Your task to perform on an android device: Show me productivity apps on the Play Store Image 0: 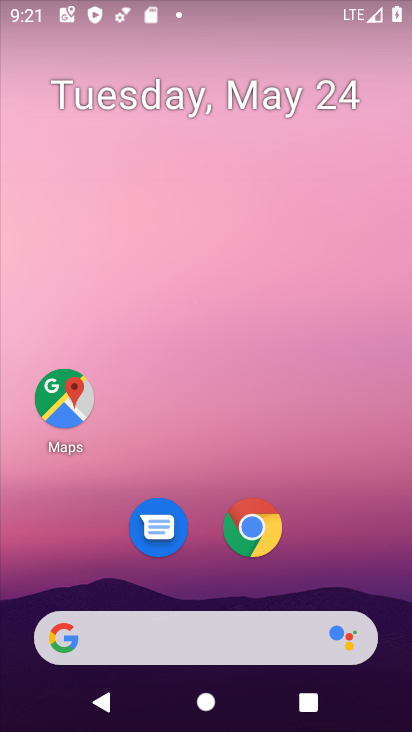
Step 0: drag from (199, 491) to (228, 53)
Your task to perform on an android device: Show me productivity apps on the Play Store Image 1: 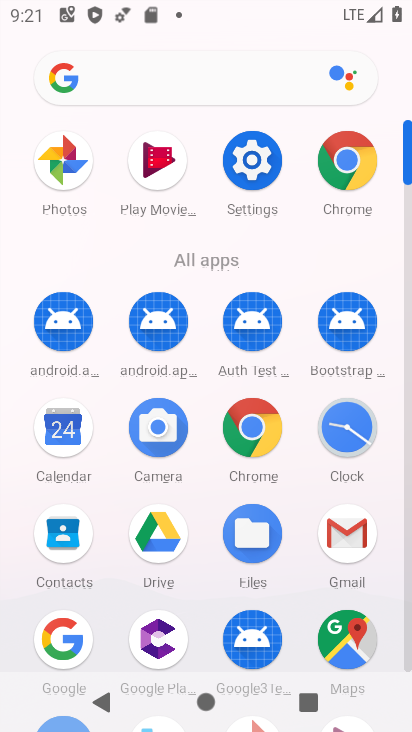
Step 1: drag from (202, 596) to (210, 62)
Your task to perform on an android device: Show me productivity apps on the Play Store Image 2: 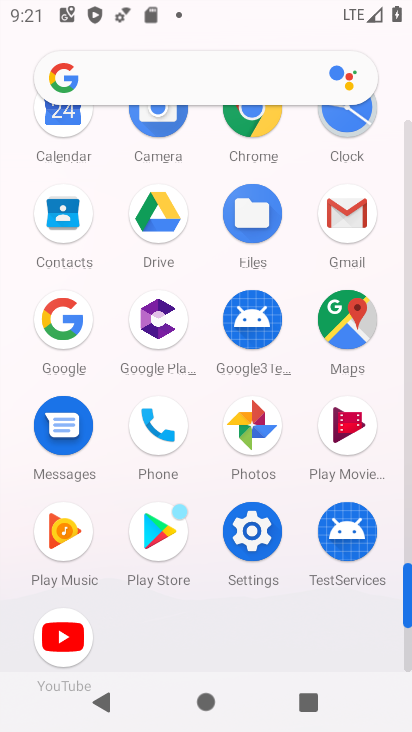
Step 2: click (160, 537)
Your task to perform on an android device: Show me productivity apps on the Play Store Image 3: 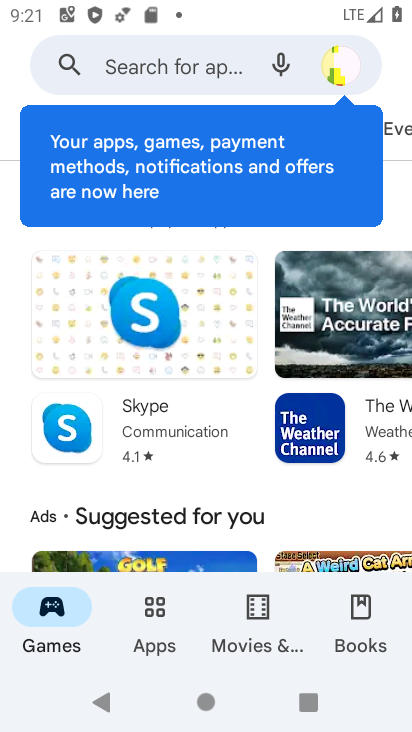
Step 3: click (18, 83)
Your task to perform on an android device: Show me productivity apps on the Play Store Image 4: 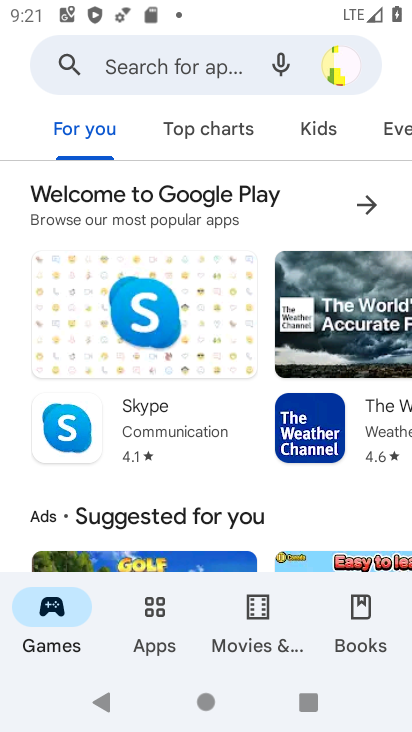
Step 4: click (148, 619)
Your task to perform on an android device: Show me productivity apps on the Play Store Image 5: 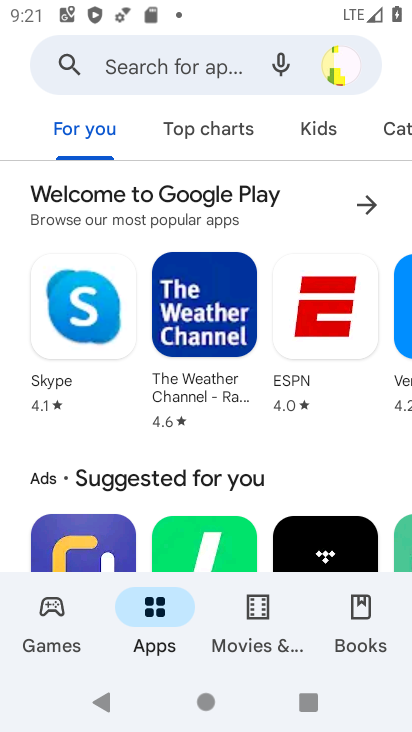
Step 5: click (223, 136)
Your task to perform on an android device: Show me productivity apps on the Play Store Image 6: 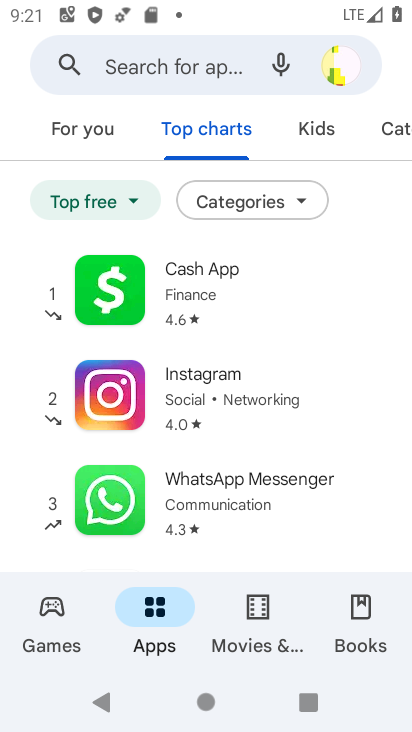
Step 6: click (325, 127)
Your task to perform on an android device: Show me productivity apps on the Play Store Image 7: 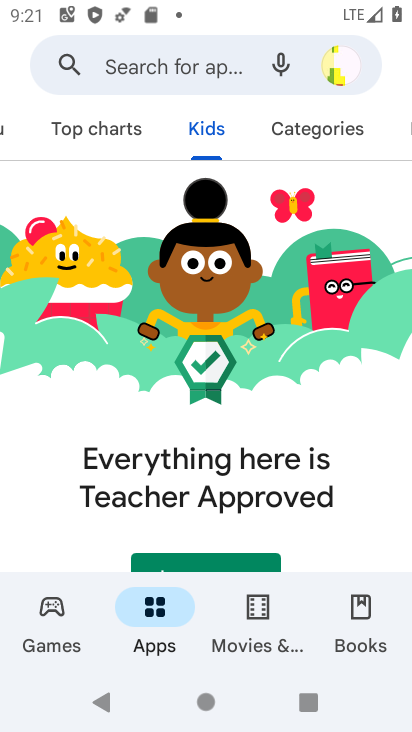
Step 7: click (340, 131)
Your task to perform on an android device: Show me productivity apps on the Play Store Image 8: 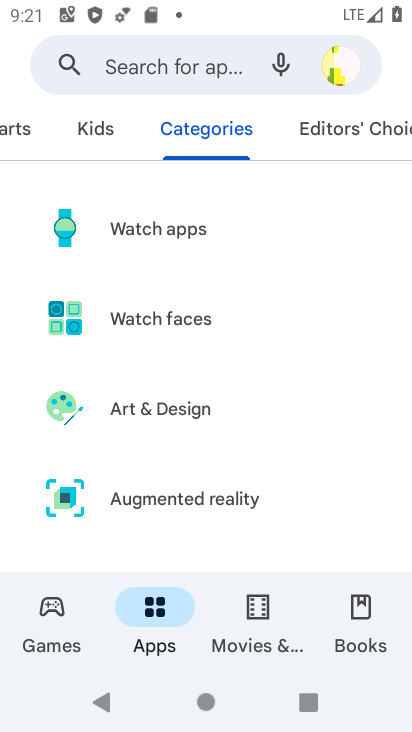
Step 8: drag from (207, 468) to (201, 66)
Your task to perform on an android device: Show me productivity apps on the Play Store Image 9: 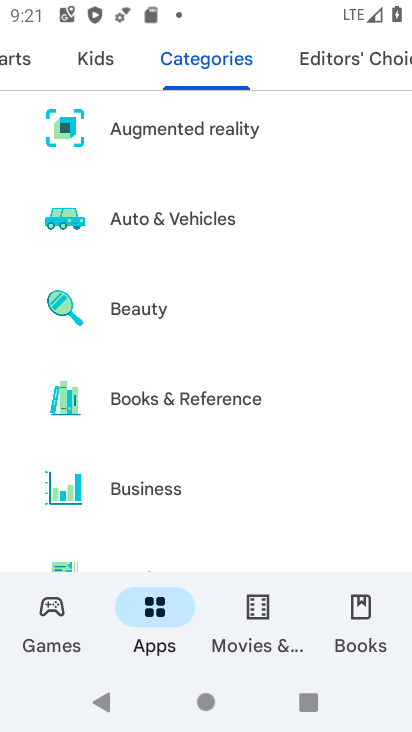
Step 9: drag from (201, 377) to (203, 36)
Your task to perform on an android device: Show me productivity apps on the Play Store Image 10: 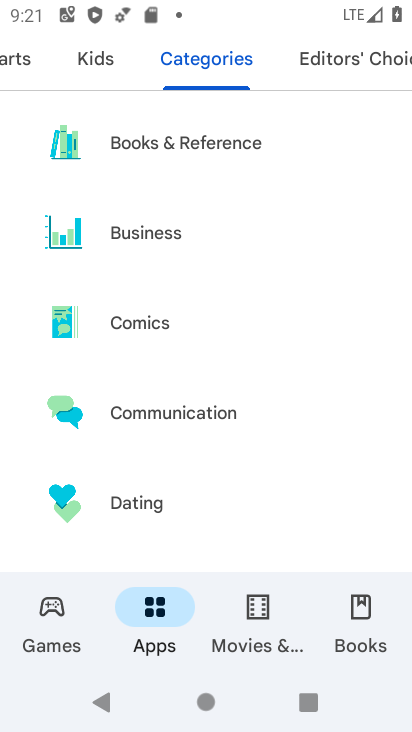
Step 10: drag from (198, 470) to (214, 92)
Your task to perform on an android device: Show me productivity apps on the Play Store Image 11: 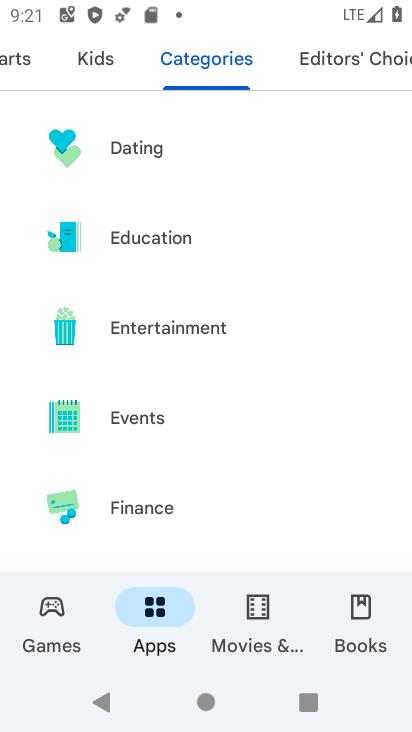
Step 11: drag from (182, 525) to (197, 98)
Your task to perform on an android device: Show me productivity apps on the Play Store Image 12: 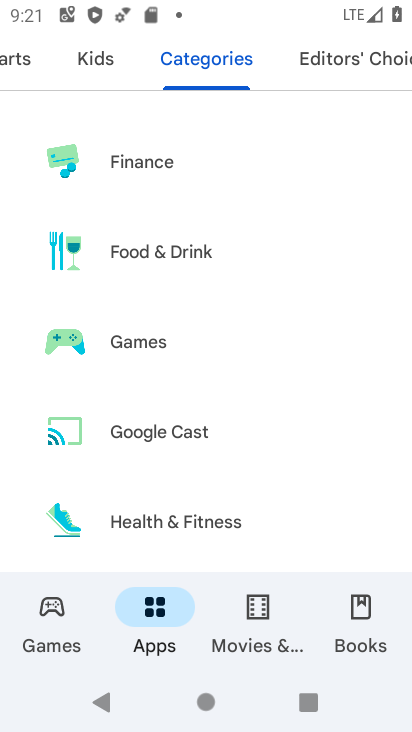
Step 12: drag from (169, 497) to (175, 80)
Your task to perform on an android device: Show me productivity apps on the Play Store Image 13: 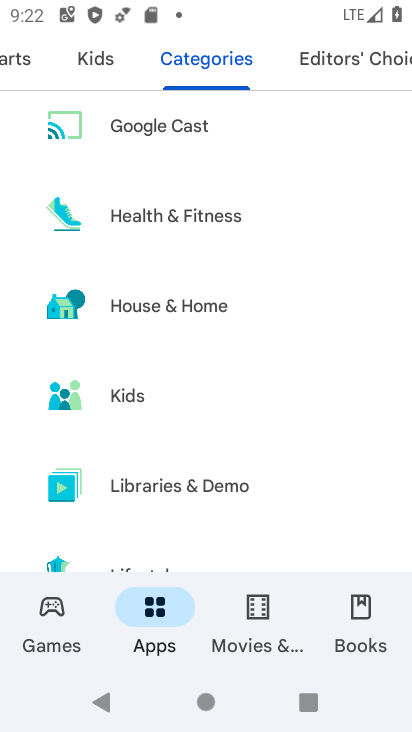
Step 13: drag from (187, 530) to (178, 136)
Your task to perform on an android device: Show me productivity apps on the Play Store Image 14: 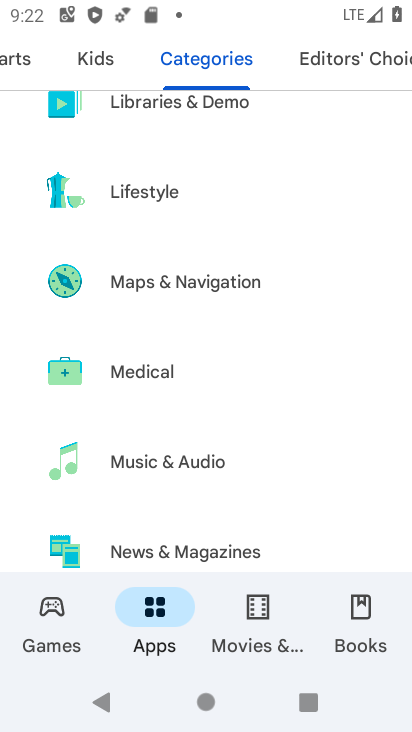
Step 14: drag from (206, 454) to (205, 164)
Your task to perform on an android device: Show me productivity apps on the Play Store Image 15: 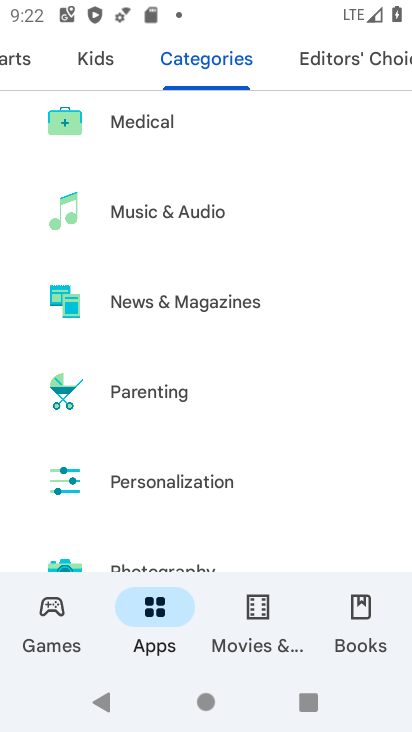
Step 15: drag from (180, 525) to (182, 241)
Your task to perform on an android device: Show me productivity apps on the Play Store Image 16: 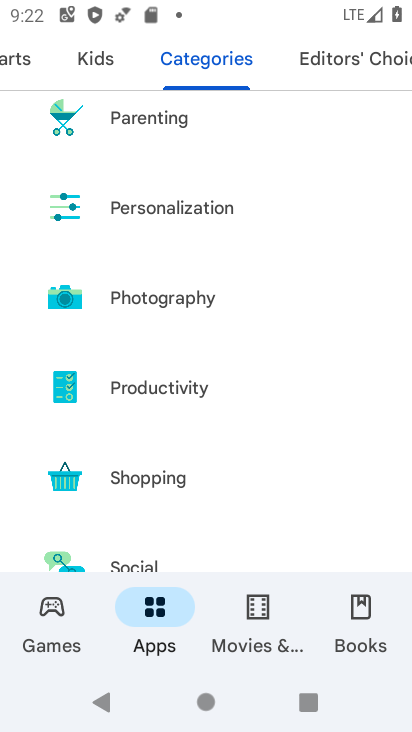
Step 16: click (176, 383)
Your task to perform on an android device: Show me productivity apps on the Play Store Image 17: 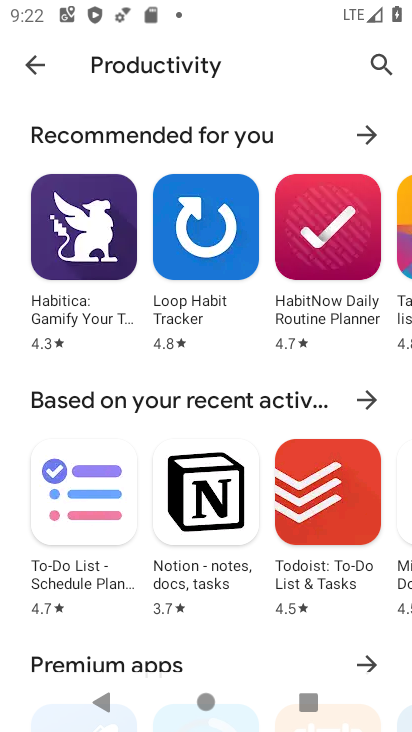
Step 17: task complete